Your task to perform on an android device: Open Amazon Image 0: 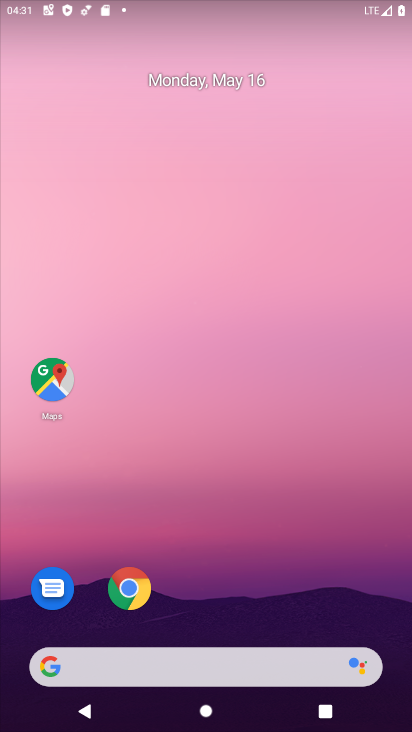
Step 0: drag from (253, 512) to (256, 52)
Your task to perform on an android device: Open Amazon Image 1: 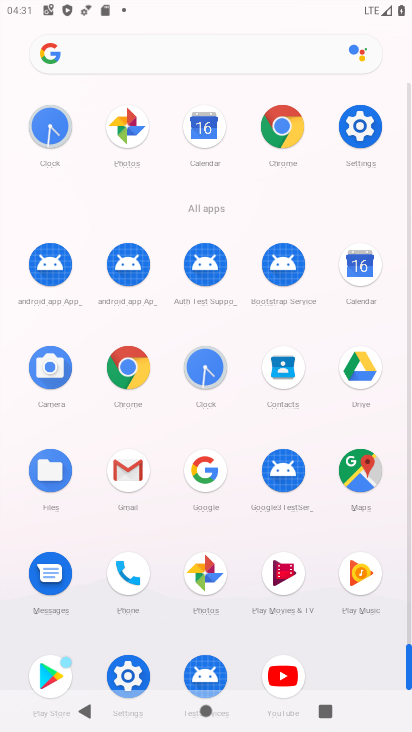
Step 1: click (285, 121)
Your task to perform on an android device: Open Amazon Image 2: 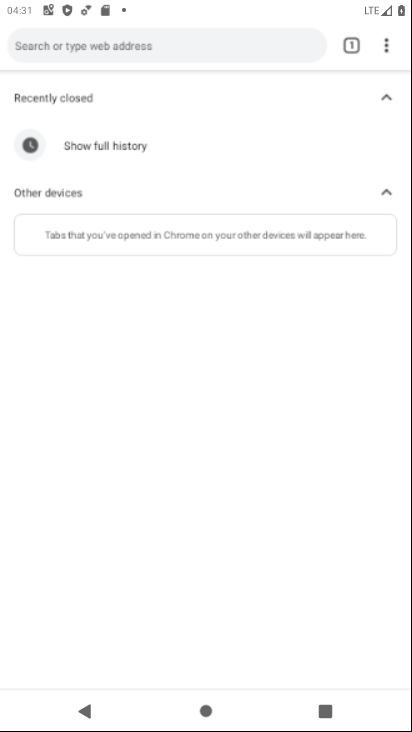
Step 2: click (222, 36)
Your task to perform on an android device: Open Amazon Image 3: 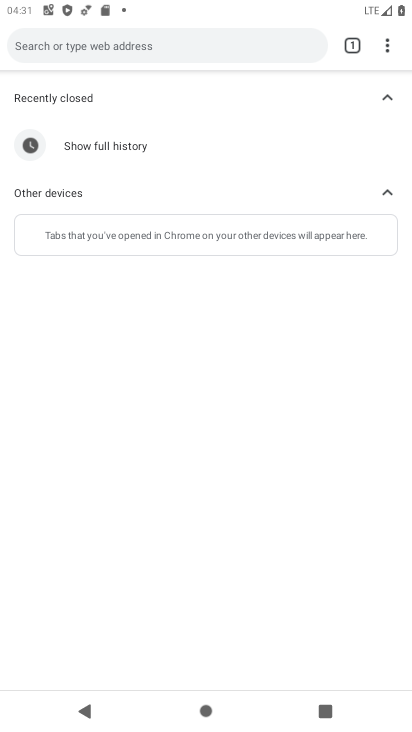
Step 3: click (150, 41)
Your task to perform on an android device: Open Amazon Image 4: 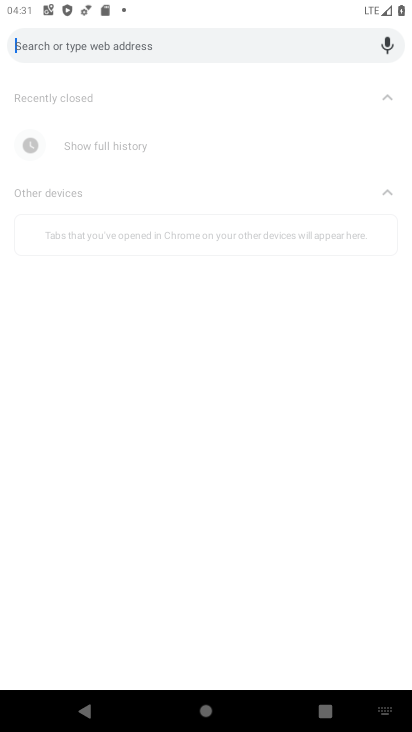
Step 4: type "Amazon"
Your task to perform on an android device: Open Amazon Image 5: 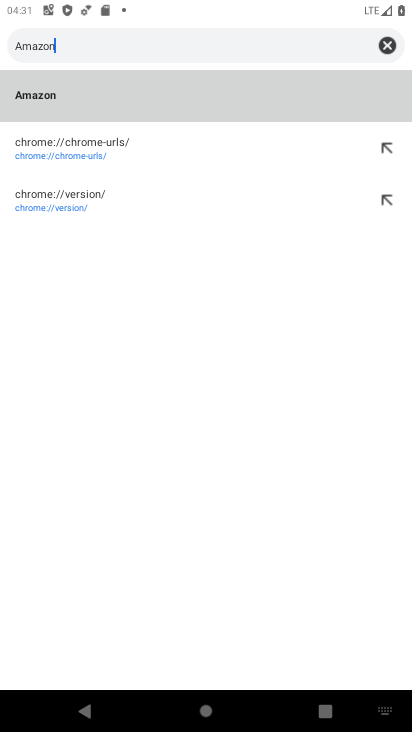
Step 5: type ""
Your task to perform on an android device: Open Amazon Image 6: 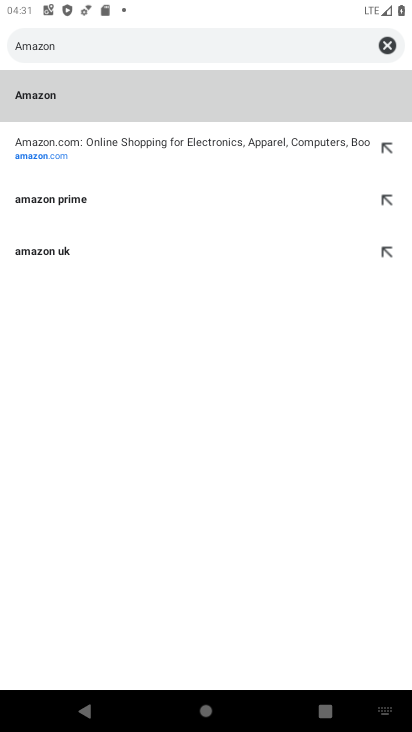
Step 6: click (64, 155)
Your task to perform on an android device: Open Amazon Image 7: 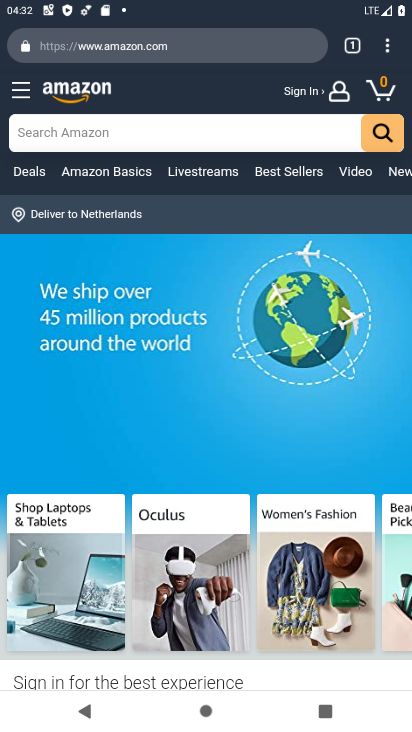
Step 7: task complete